Your task to perform on an android device: When is my next meeting? Image 0: 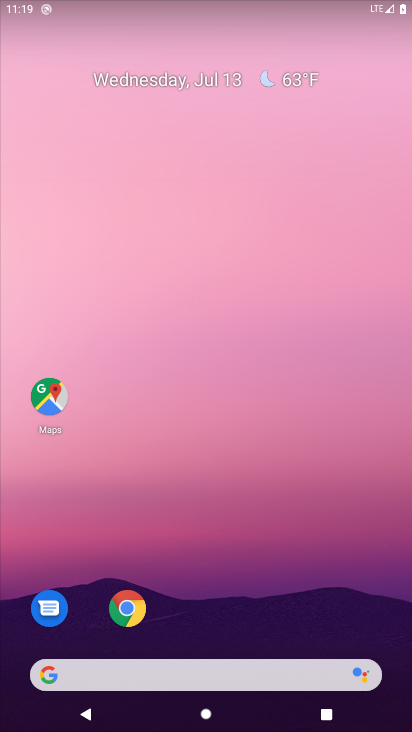
Step 0: drag from (263, 607) to (363, 88)
Your task to perform on an android device: When is my next meeting? Image 1: 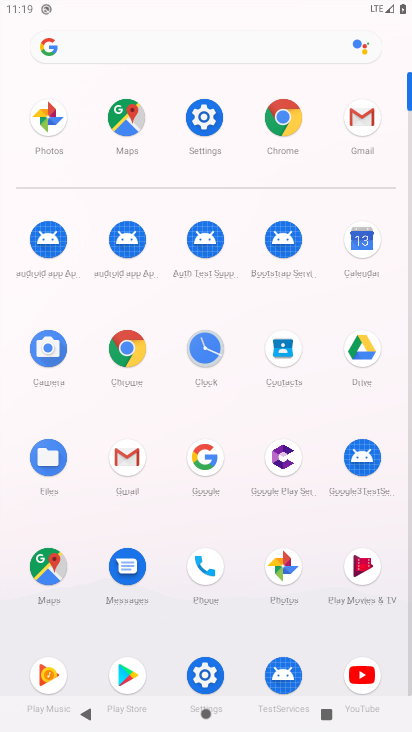
Step 1: click (364, 245)
Your task to perform on an android device: When is my next meeting? Image 2: 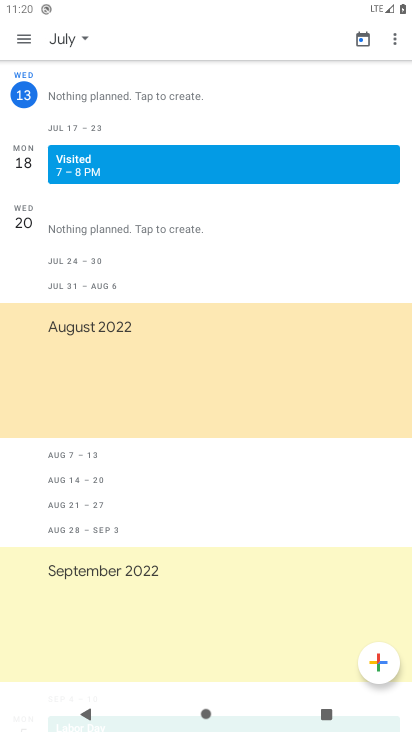
Step 2: click (88, 35)
Your task to perform on an android device: When is my next meeting? Image 3: 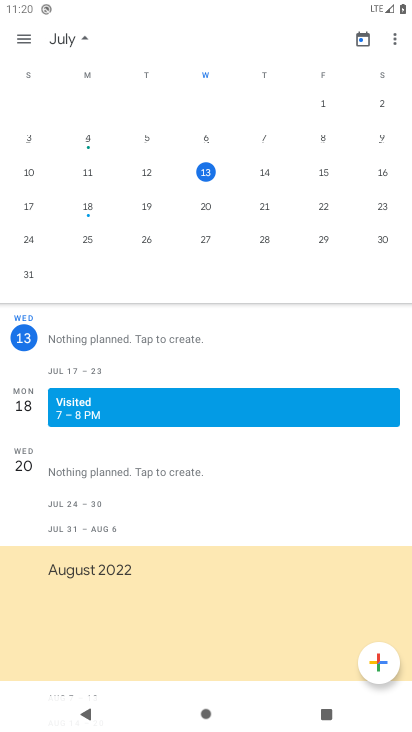
Step 3: click (201, 170)
Your task to perform on an android device: When is my next meeting? Image 4: 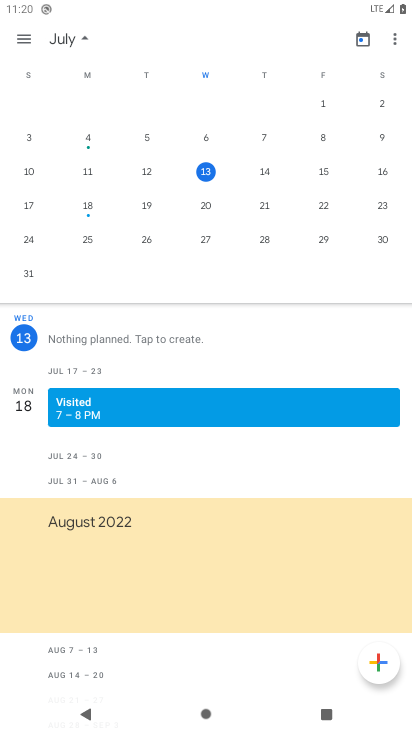
Step 4: click (264, 165)
Your task to perform on an android device: When is my next meeting? Image 5: 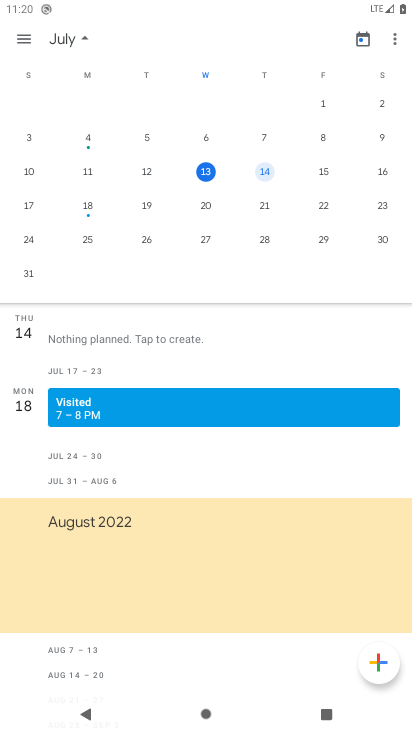
Step 5: task complete